Your task to perform on an android device: open app "NewsBreak: Local News & Alerts" (install if not already installed) and go to login screen Image 0: 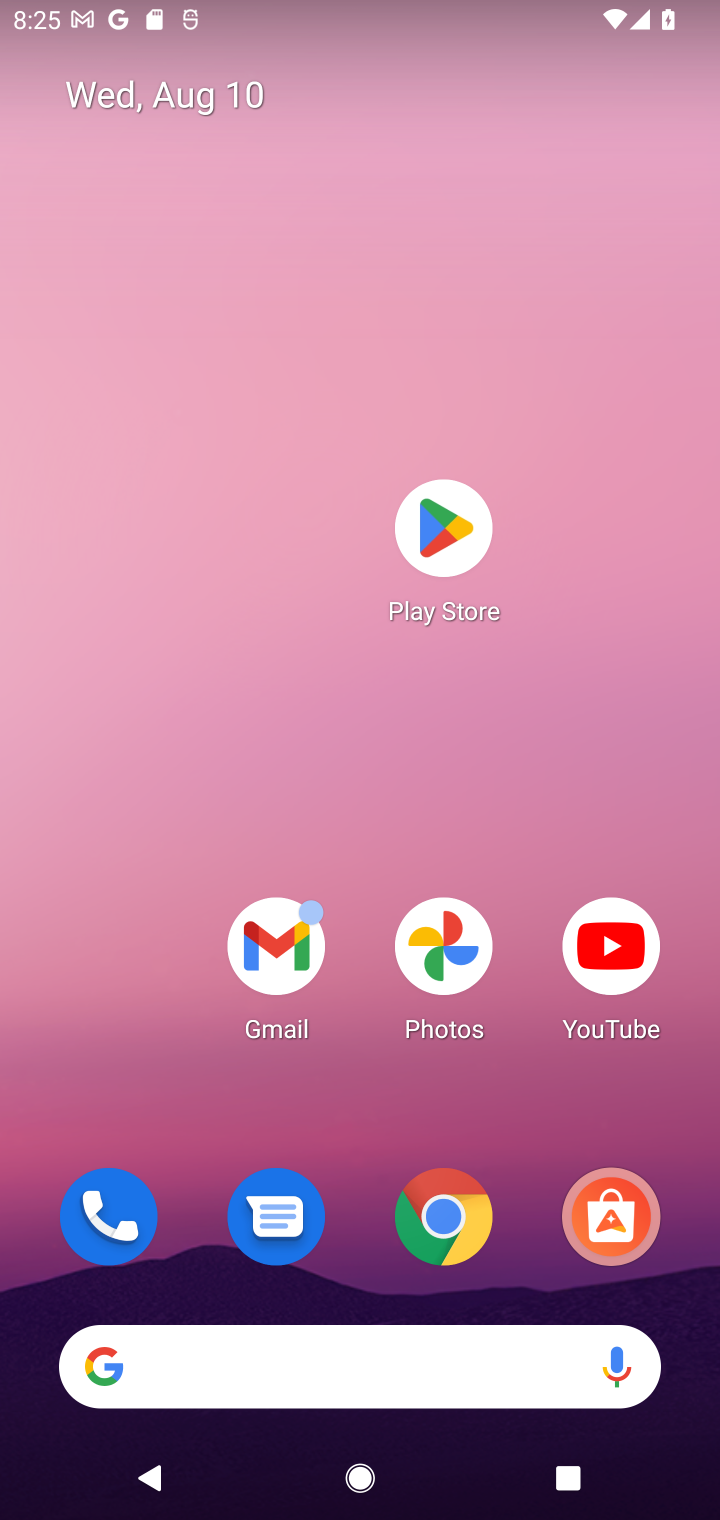
Step 0: press home button
Your task to perform on an android device: open app "NewsBreak: Local News & Alerts" (install if not already installed) and go to login screen Image 1: 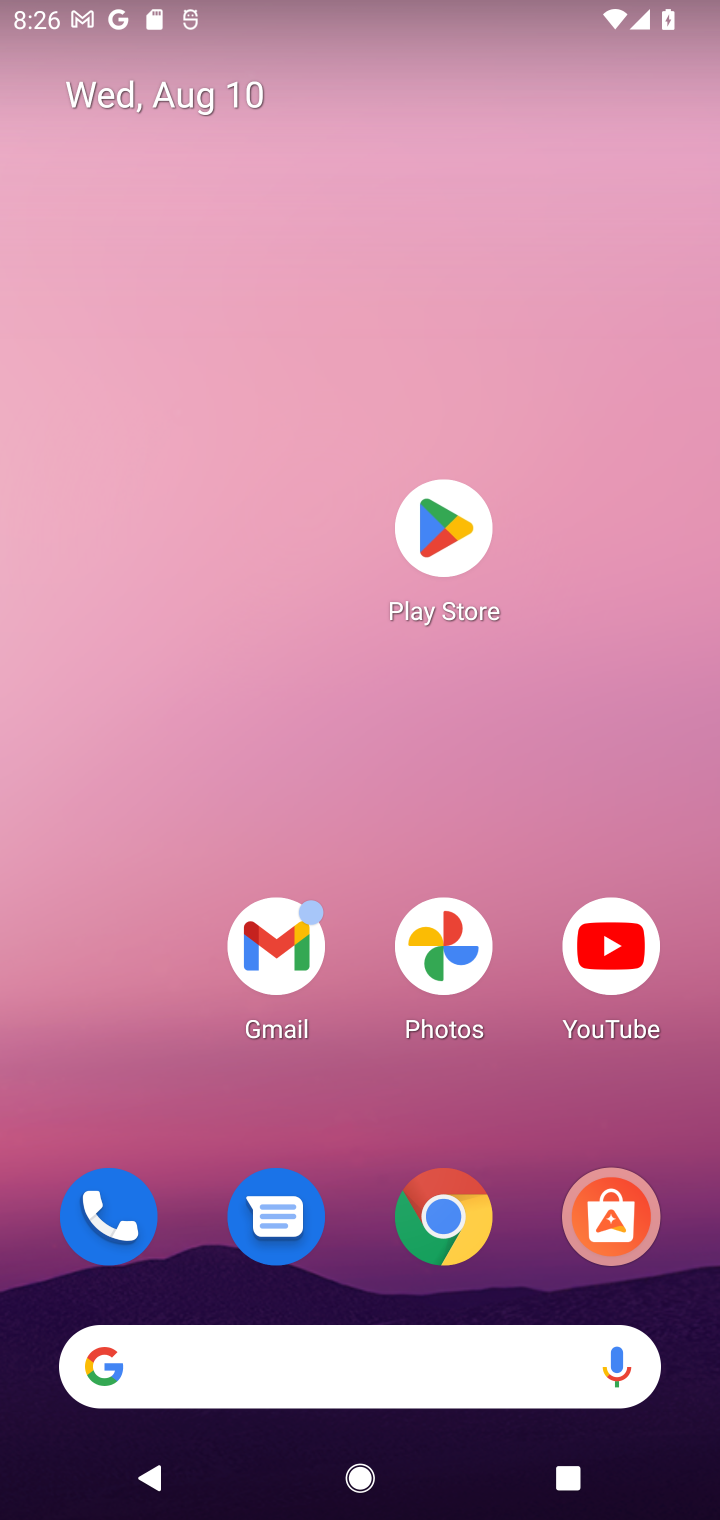
Step 1: click (461, 523)
Your task to perform on an android device: open app "NewsBreak: Local News & Alerts" (install if not already installed) and go to login screen Image 2: 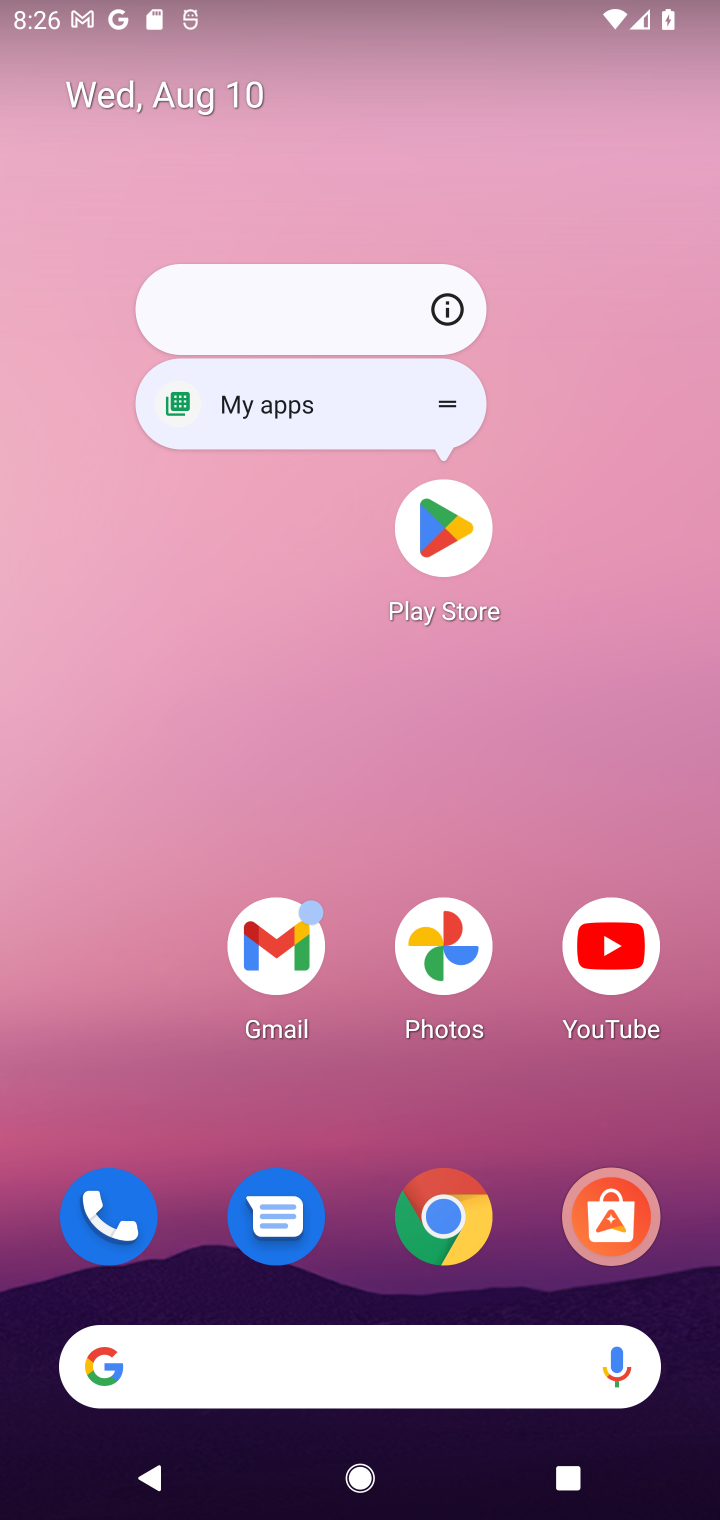
Step 2: click (453, 526)
Your task to perform on an android device: open app "NewsBreak: Local News & Alerts" (install if not already installed) and go to login screen Image 3: 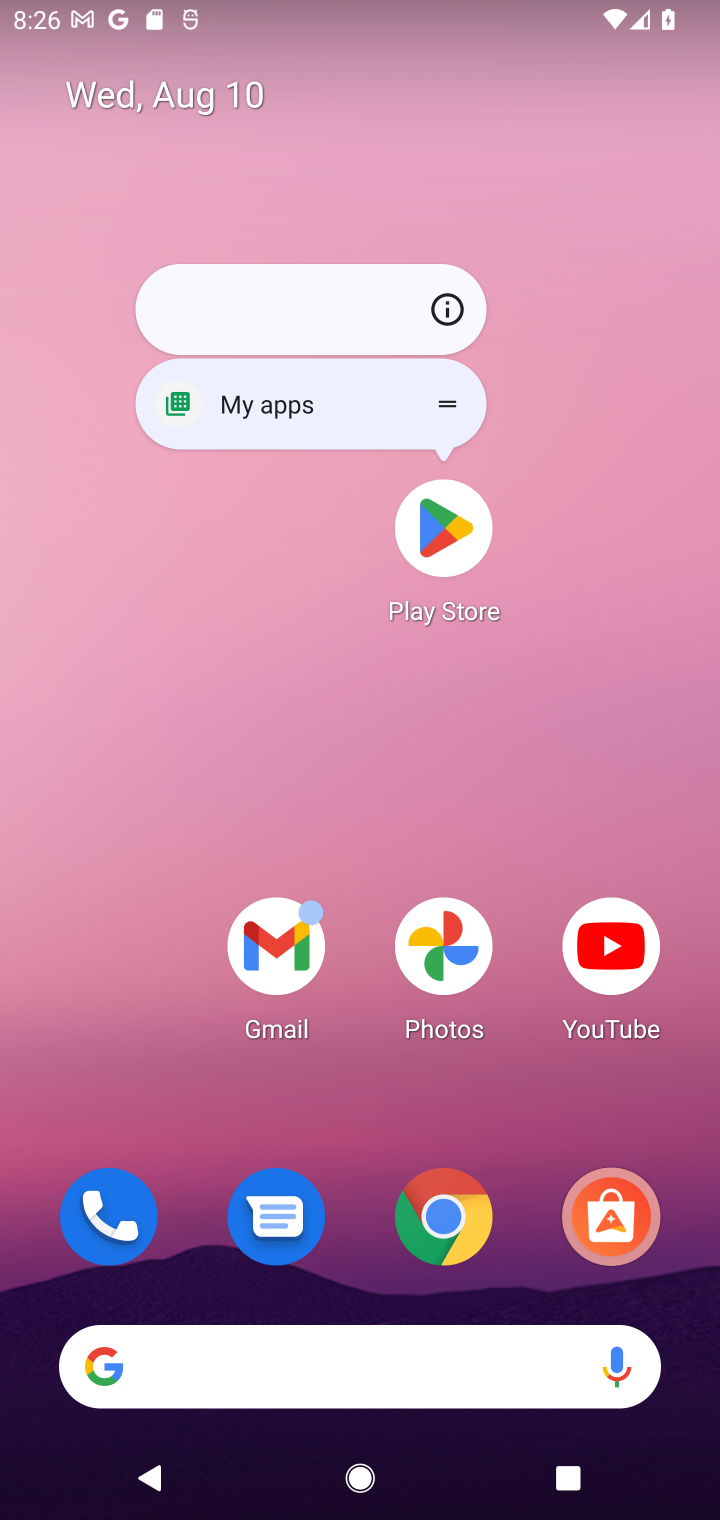
Step 3: click (435, 526)
Your task to perform on an android device: open app "NewsBreak: Local News & Alerts" (install if not already installed) and go to login screen Image 4: 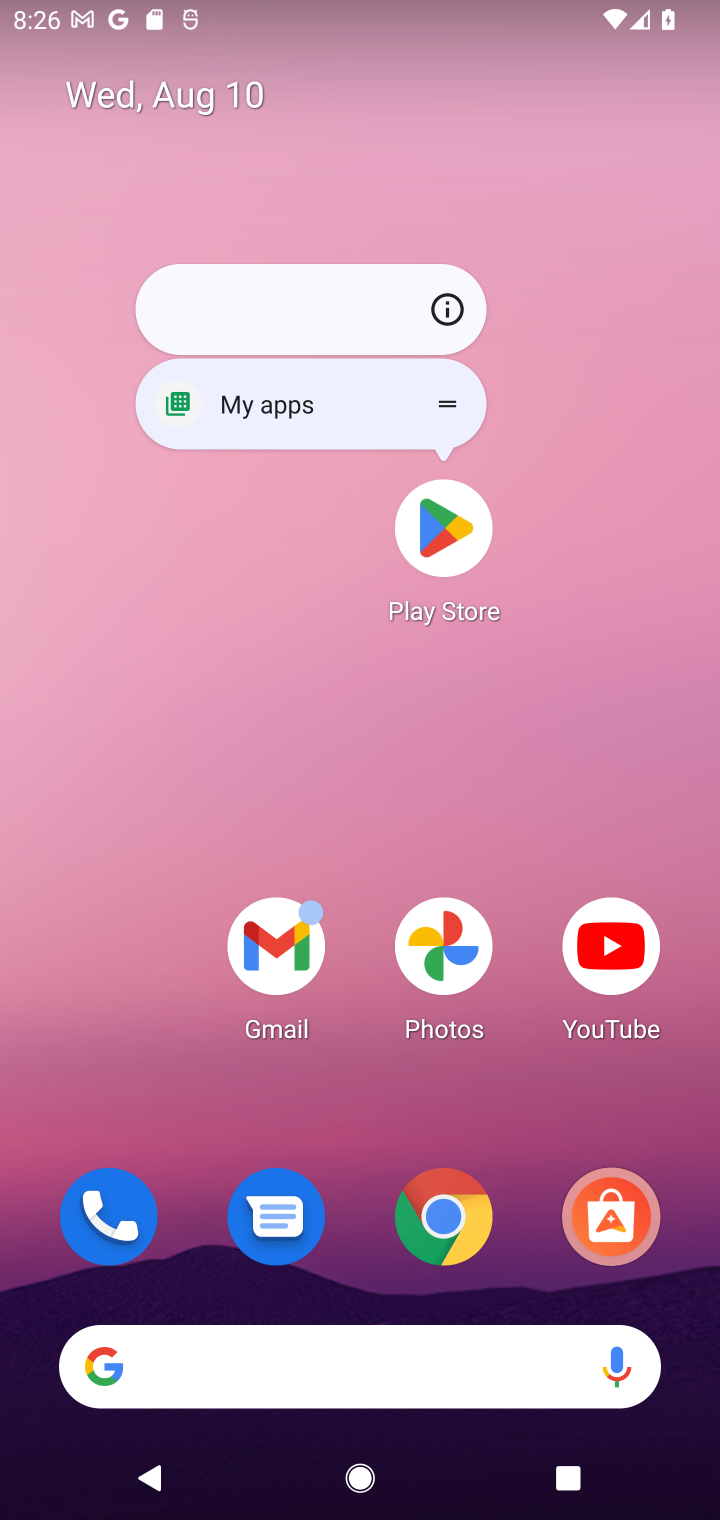
Step 4: click (435, 526)
Your task to perform on an android device: open app "NewsBreak: Local News & Alerts" (install if not already installed) and go to login screen Image 5: 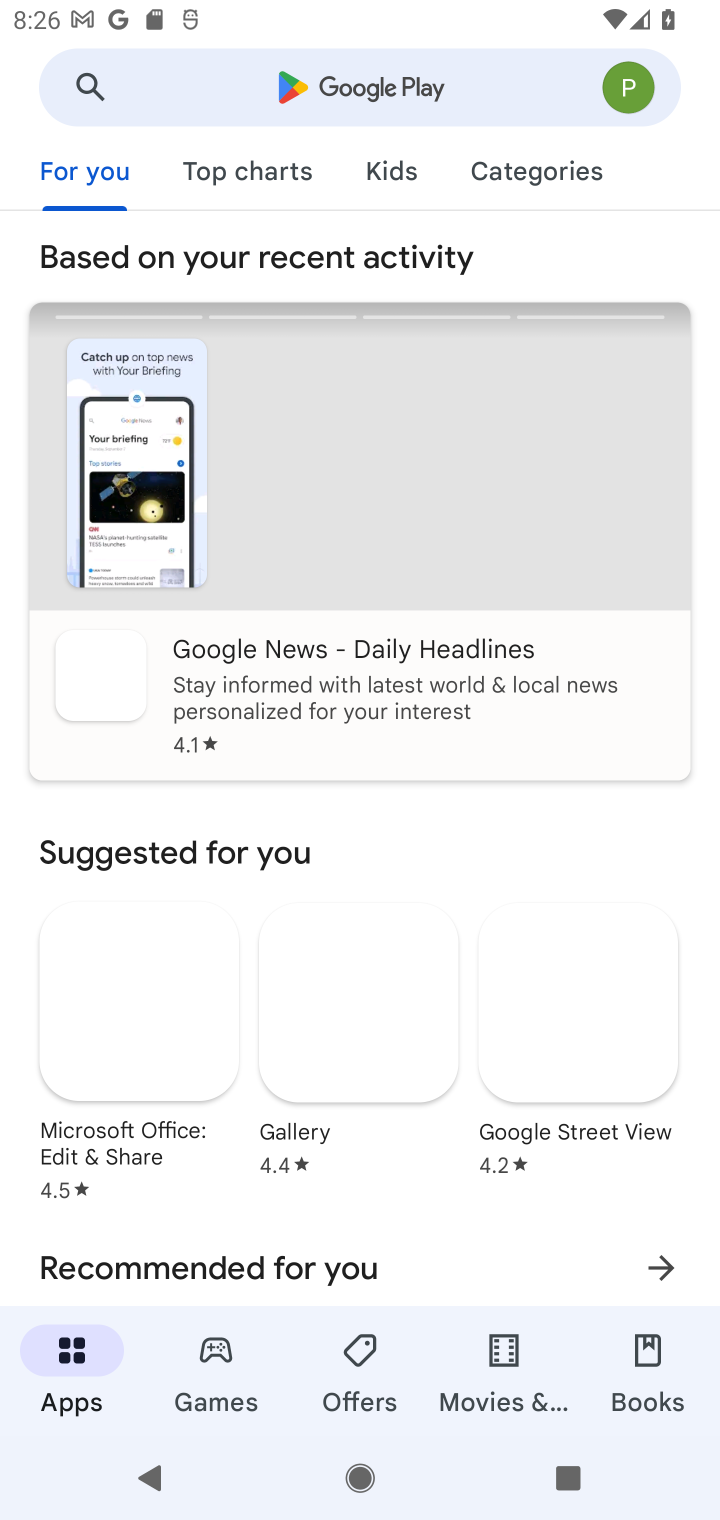
Step 5: click (467, 90)
Your task to perform on an android device: open app "NewsBreak: Local News & Alerts" (install if not already installed) and go to login screen Image 6: 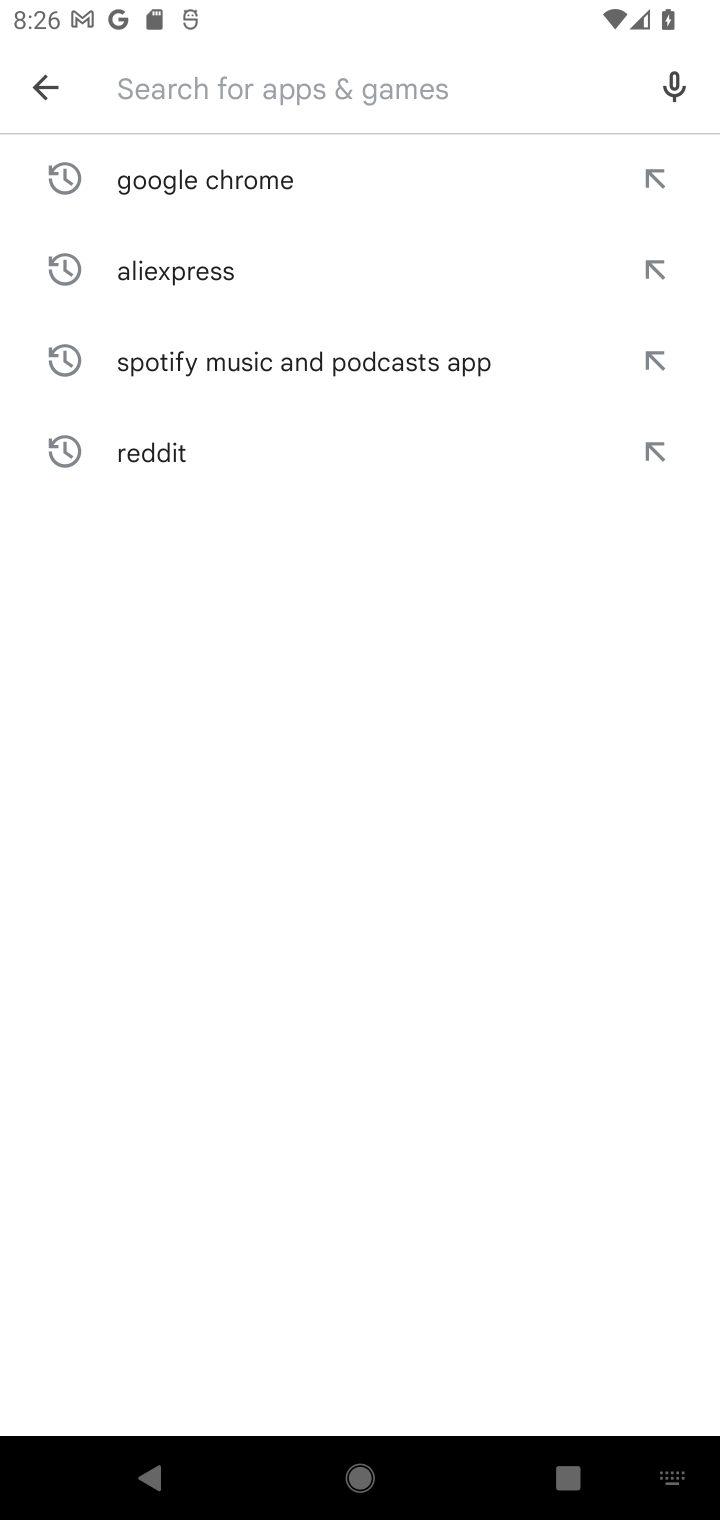
Step 6: type "NewsBreak: Local News & Alerts"
Your task to perform on an android device: open app "NewsBreak: Local News & Alerts" (install if not already installed) and go to login screen Image 7: 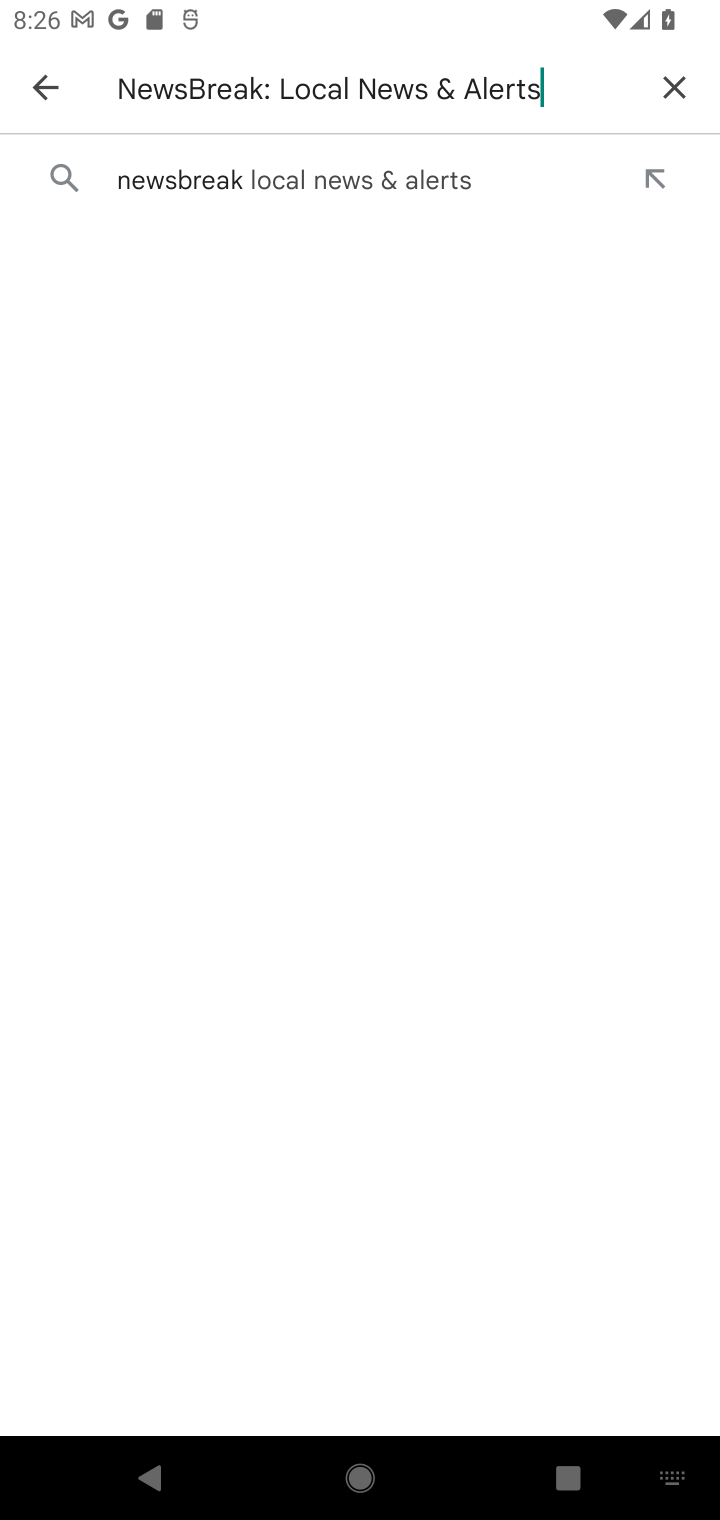
Step 7: click (208, 179)
Your task to perform on an android device: open app "NewsBreak: Local News & Alerts" (install if not already installed) and go to login screen Image 8: 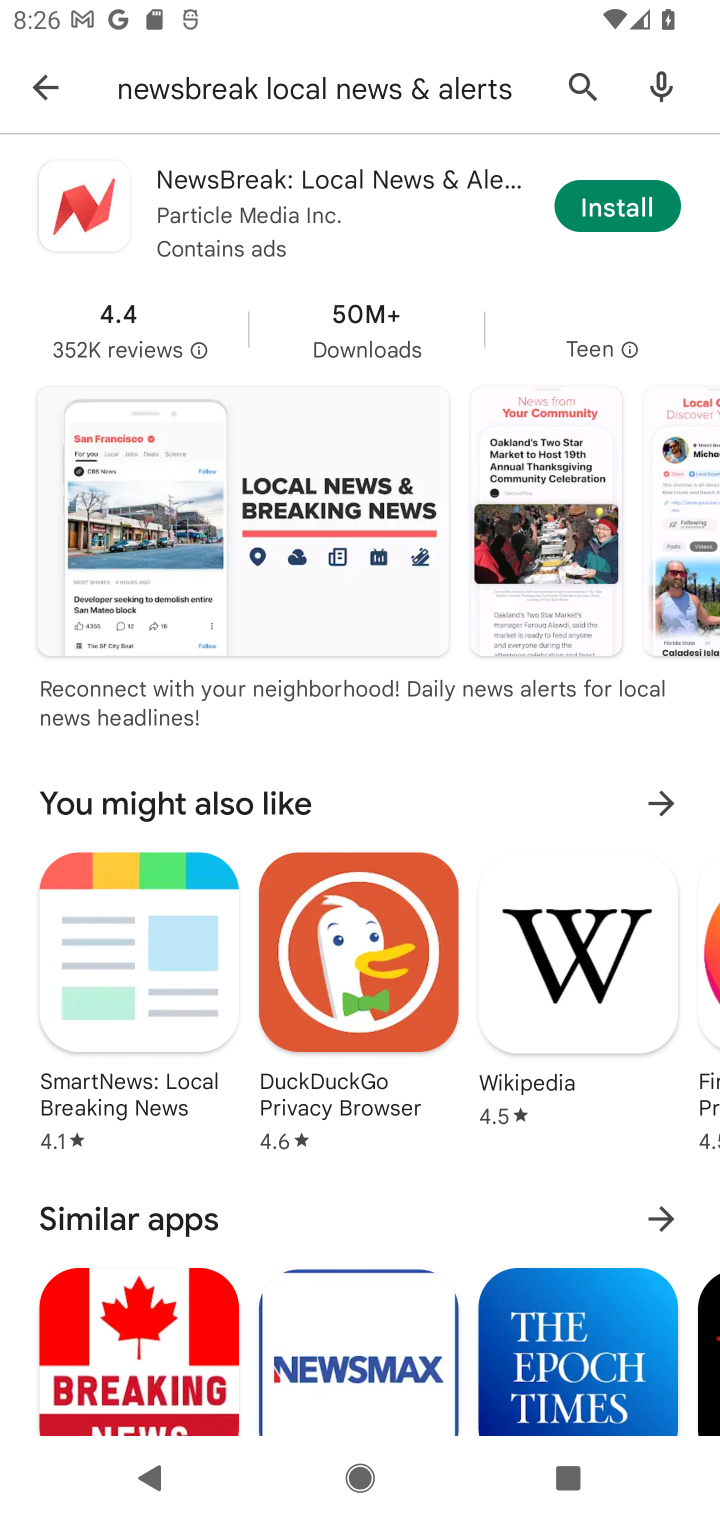
Step 8: click (626, 212)
Your task to perform on an android device: open app "NewsBreak: Local News & Alerts" (install if not already installed) and go to login screen Image 9: 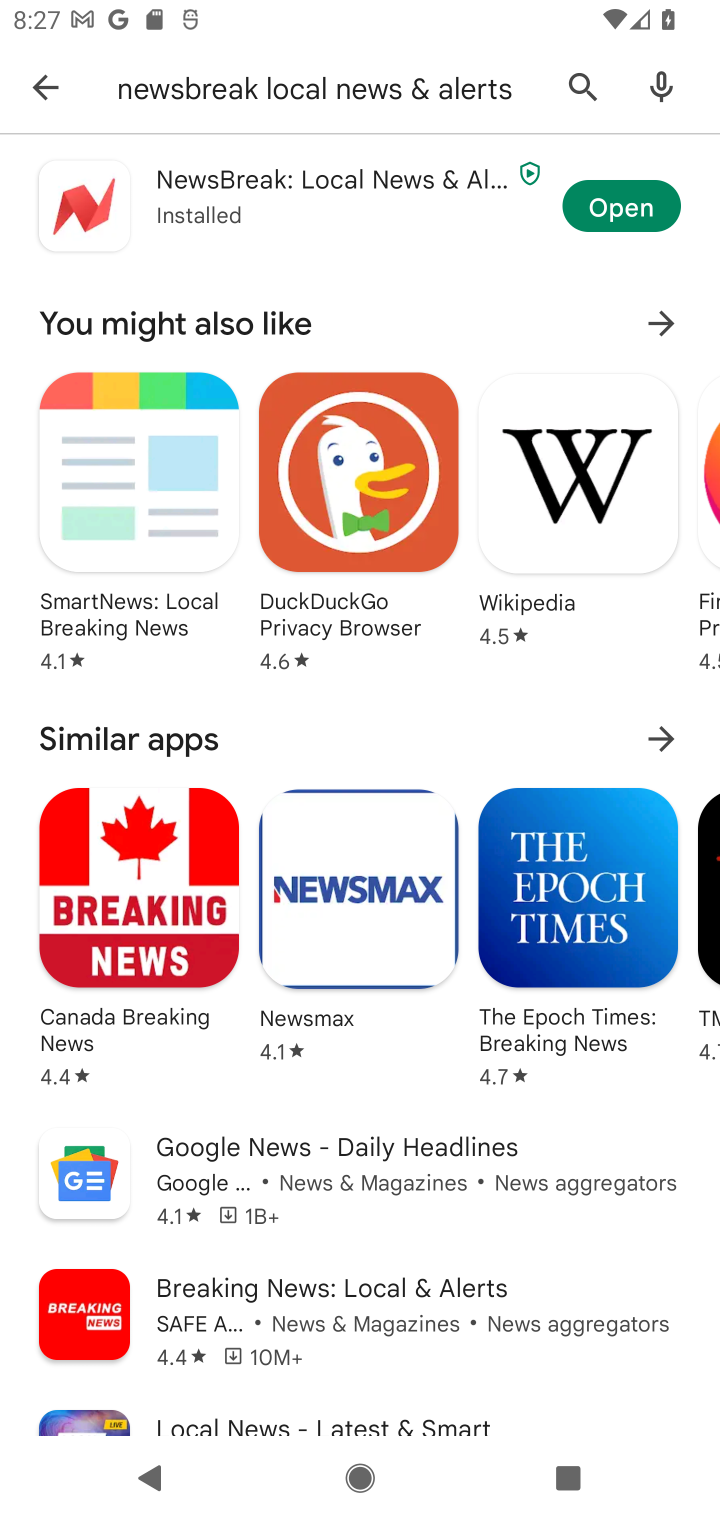
Step 9: click (624, 213)
Your task to perform on an android device: open app "NewsBreak: Local News & Alerts" (install if not already installed) and go to login screen Image 10: 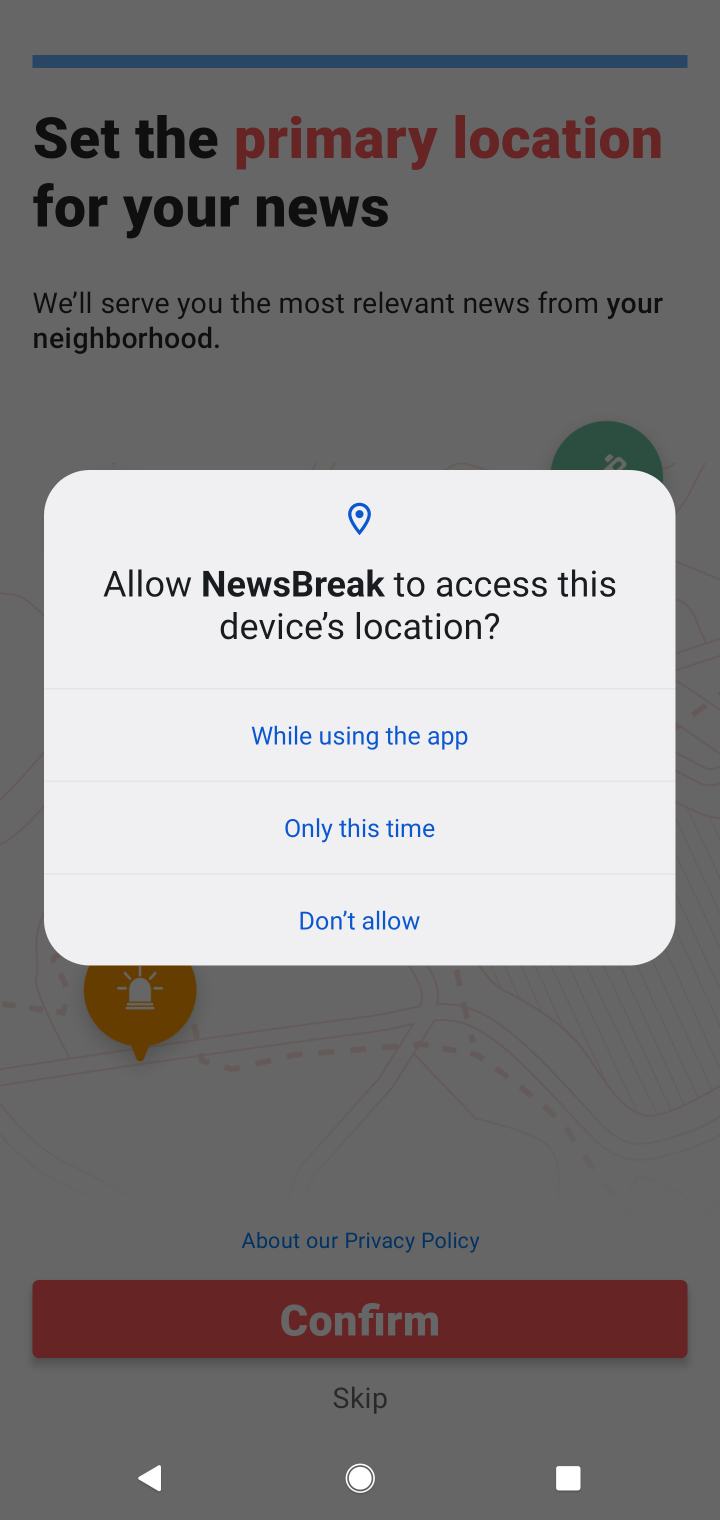
Step 10: task complete